Your task to perform on an android device: open app "YouTube Kids" (install if not already installed) Image 0: 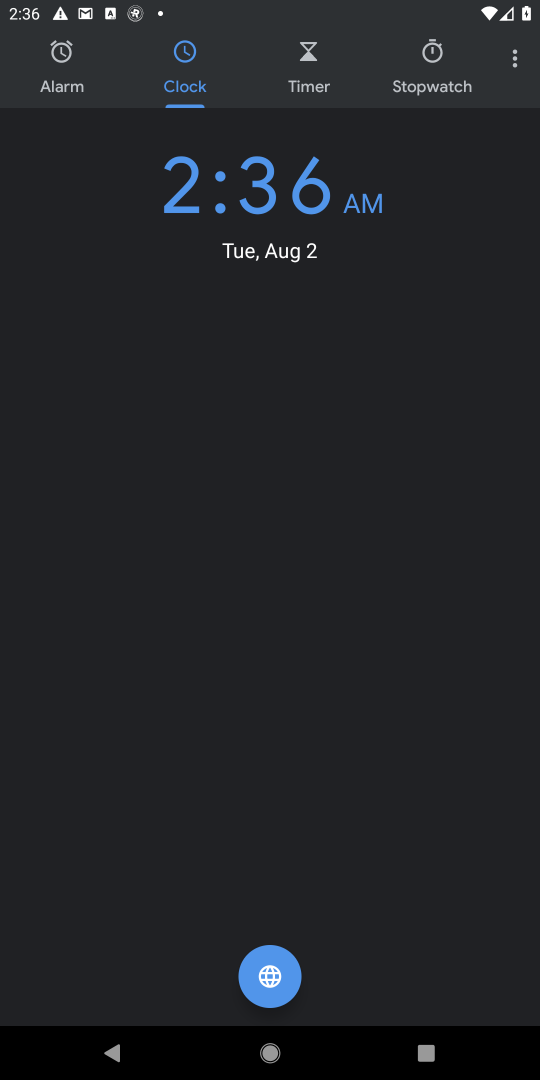
Step 0: press home button
Your task to perform on an android device: open app "YouTube Kids" (install if not already installed) Image 1: 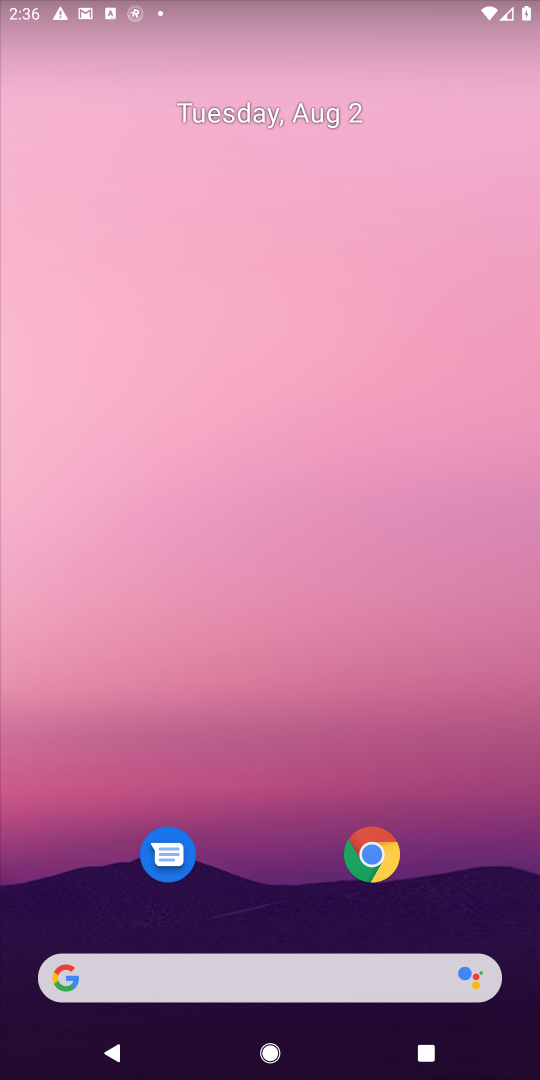
Step 1: drag from (320, 1034) to (326, 78)
Your task to perform on an android device: open app "YouTube Kids" (install if not already installed) Image 2: 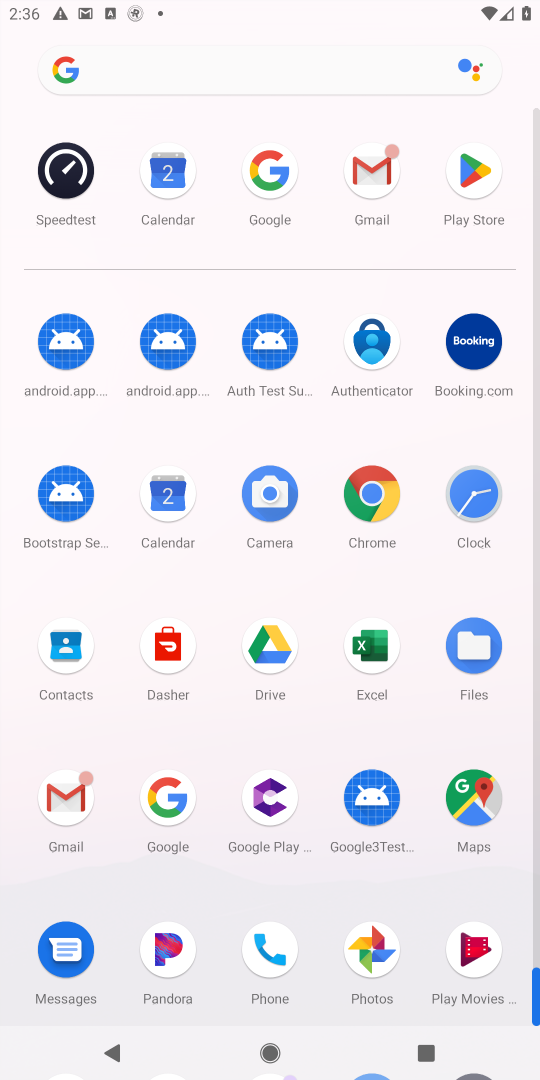
Step 2: drag from (408, 955) to (406, 339)
Your task to perform on an android device: open app "YouTube Kids" (install if not already installed) Image 3: 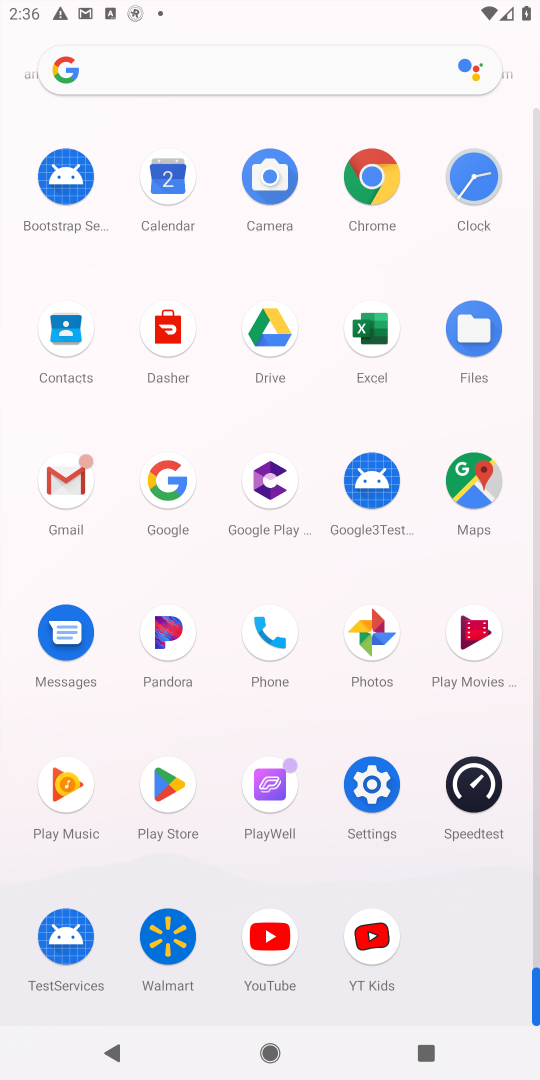
Step 3: click (369, 946)
Your task to perform on an android device: open app "YouTube Kids" (install if not already installed) Image 4: 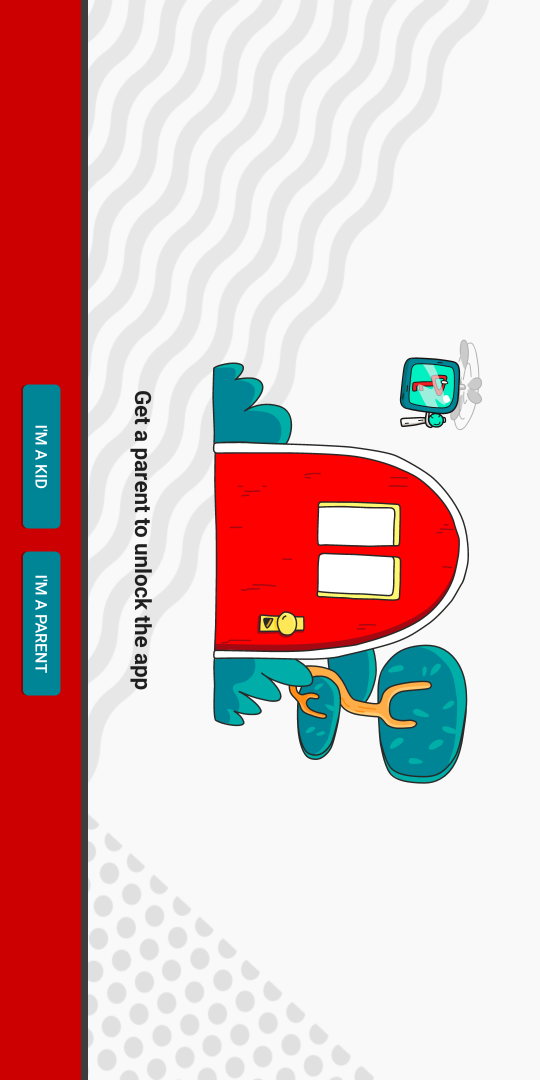
Step 4: task complete